Your task to perform on an android device: search for starred emails in the gmail app Image 0: 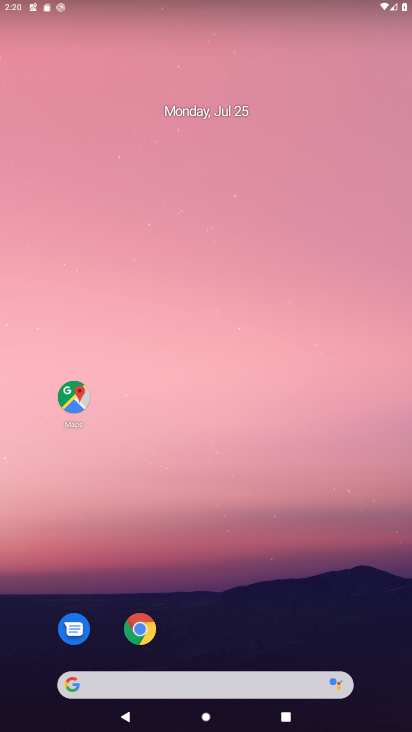
Step 0: drag from (260, 543) to (109, 0)
Your task to perform on an android device: search for starred emails in the gmail app Image 1: 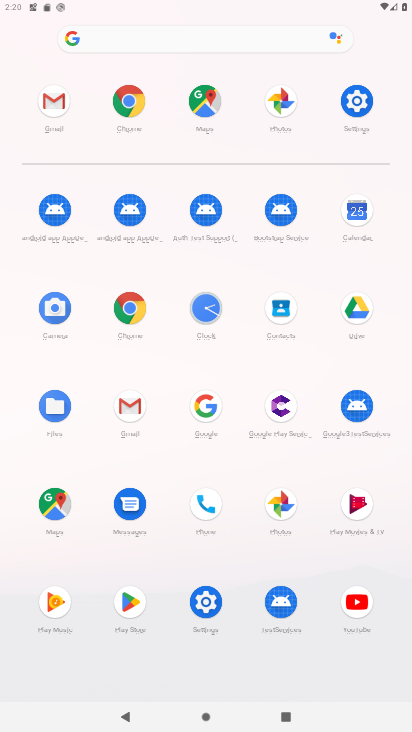
Step 1: click (50, 95)
Your task to perform on an android device: search for starred emails in the gmail app Image 2: 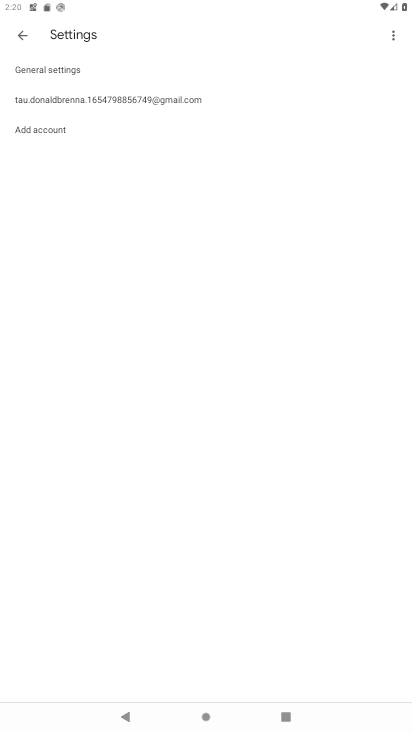
Step 2: click (50, 95)
Your task to perform on an android device: search for starred emails in the gmail app Image 3: 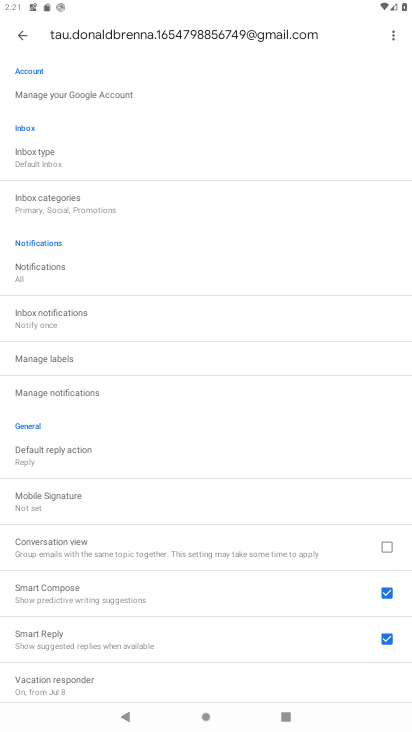
Step 3: click (17, 35)
Your task to perform on an android device: search for starred emails in the gmail app Image 4: 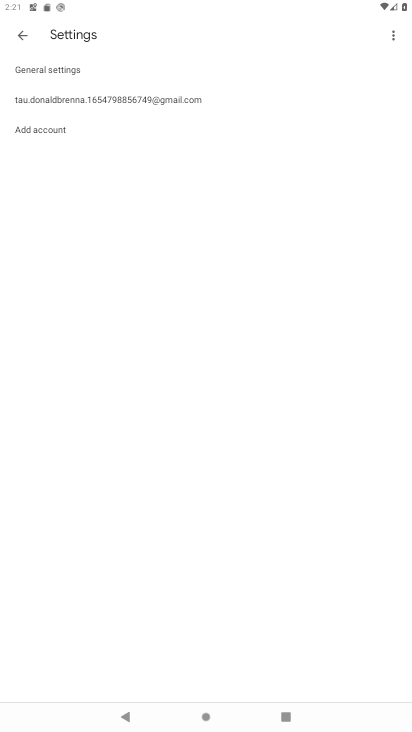
Step 4: click (16, 42)
Your task to perform on an android device: search for starred emails in the gmail app Image 5: 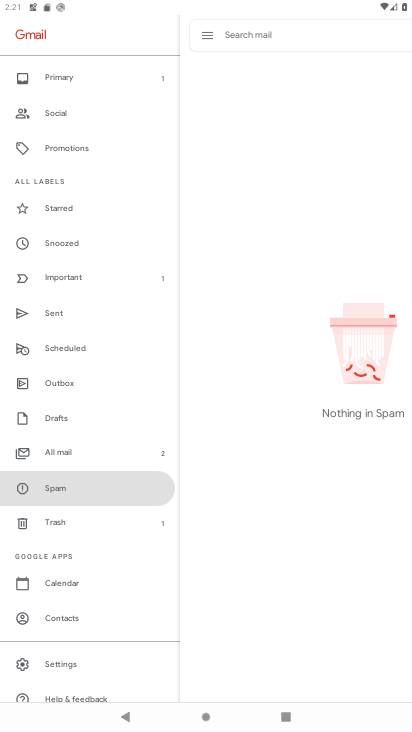
Step 5: click (79, 456)
Your task to perform on an android device: search for starred emails in the gmail app Image 6: 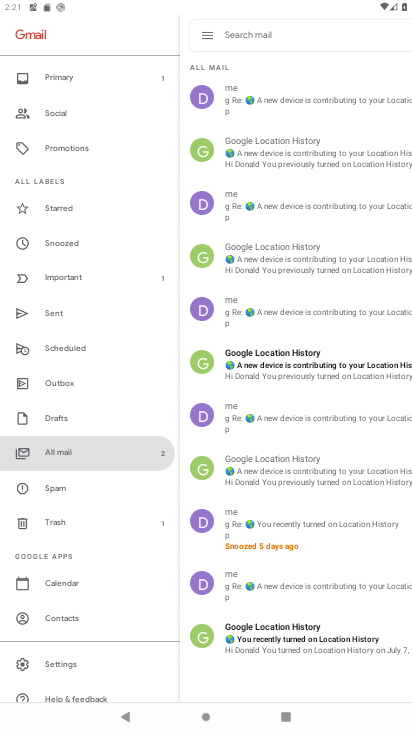
Step 6: click (63, 206)
Your task to perform on an android device: search for starred emails in the gmail app Image 7: 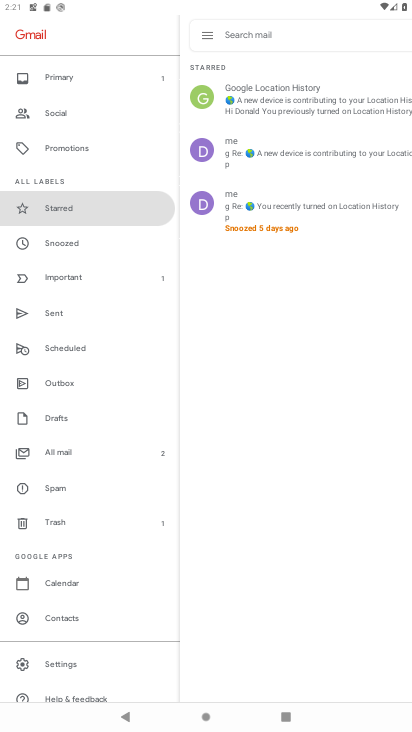
Step 7: task complete